Your task to perform on an android device: Go to internet settings Image 0: 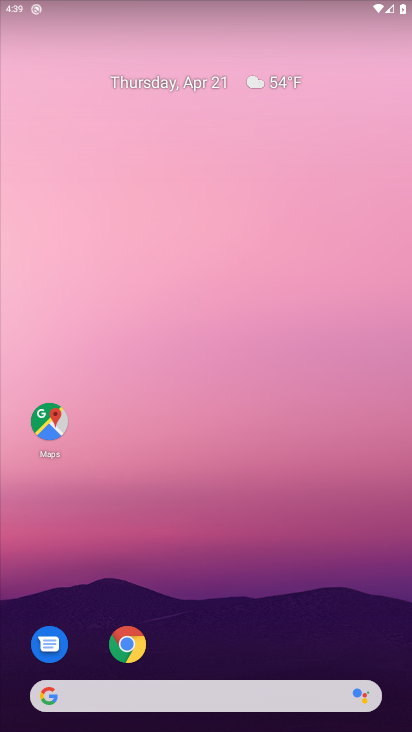
Step 0: drag from (207, 677) to (210, 207)
Your task to perform on an android device: Go to internet settings Image 1: 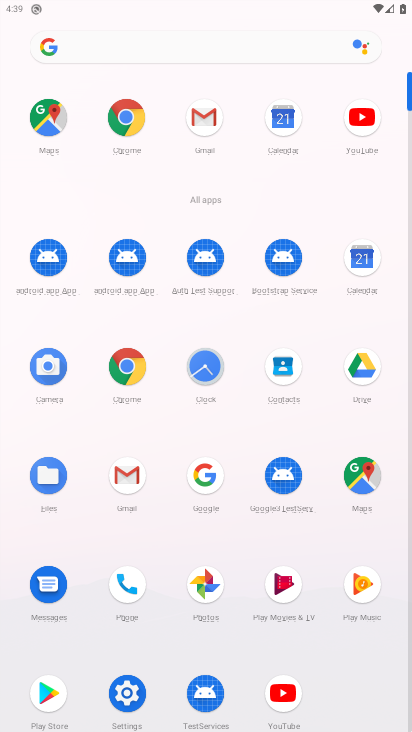
Step 1: click (123, 699)
Your task to perform on an android device: Go to internet settings Image 2: 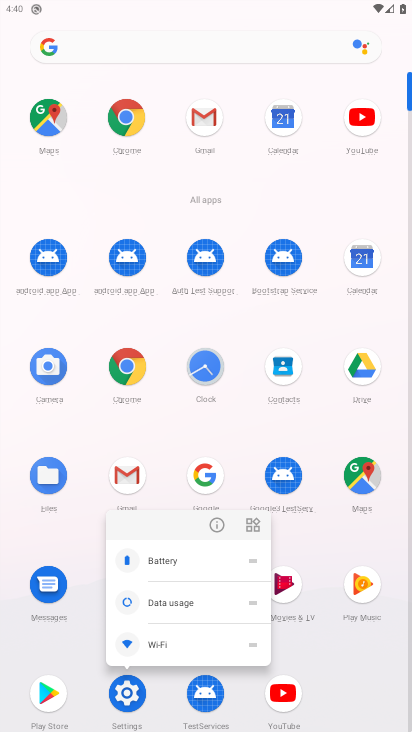
Step 2: click (131, 688)
Your task to perform on an android device: Go to internet settings Image 3: 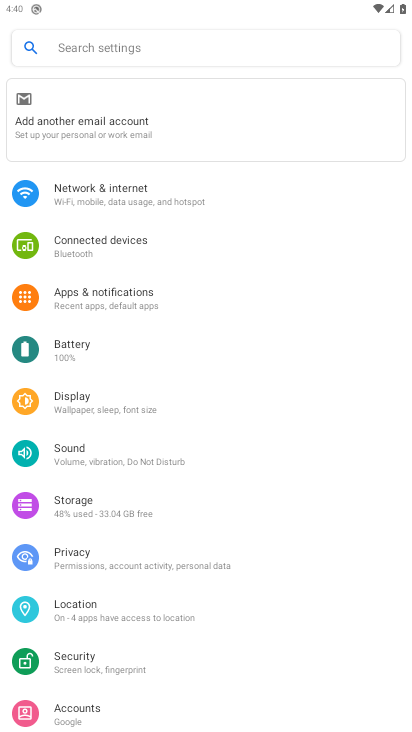
Step 3: click (127, 692)
Your task to perform on an android device: Go to internet settings Image 4: 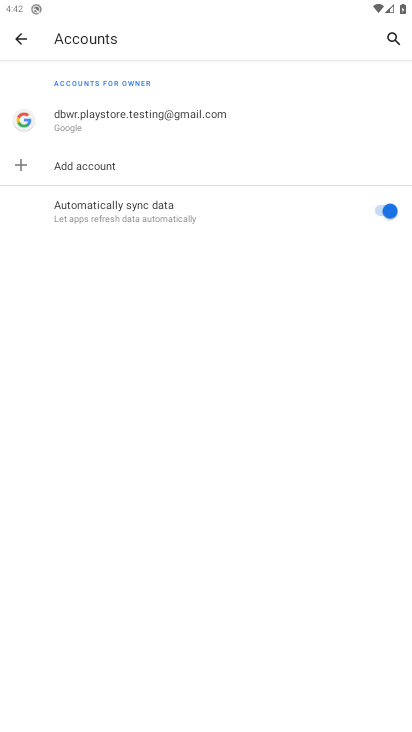
Step 4: press home button
Your task to perform on an android device: Go to internet settings Image 5: 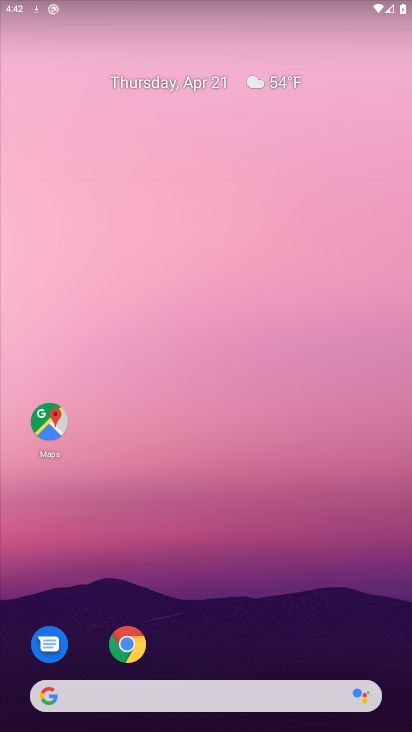
Step 5: click (234, 200)
Your task to perform on an android device: Go to internet settings Image 6: 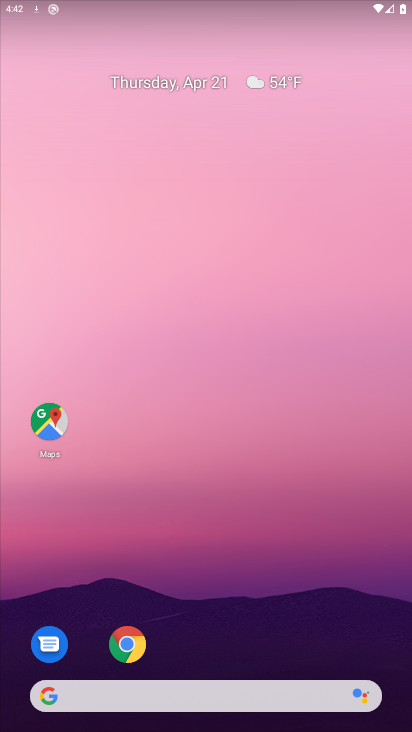
Step 6: drag from (227, 682) to (225, 222)
Your task to perform on an android device: Go to internet settings Image 7: 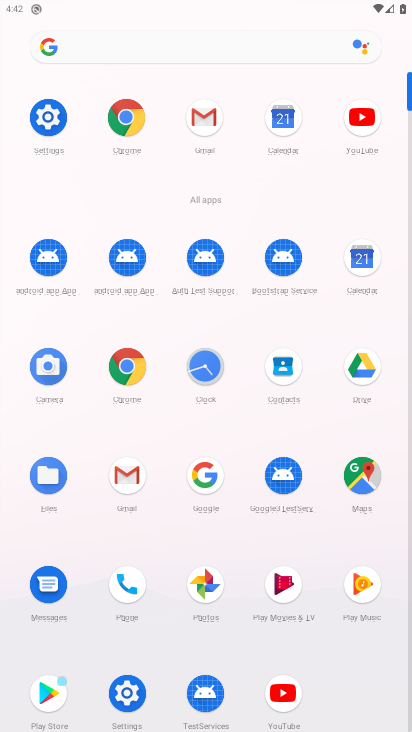
Step 7: click (44, 115)
Your task to perform on an android device: Go to internet settings Image 8: 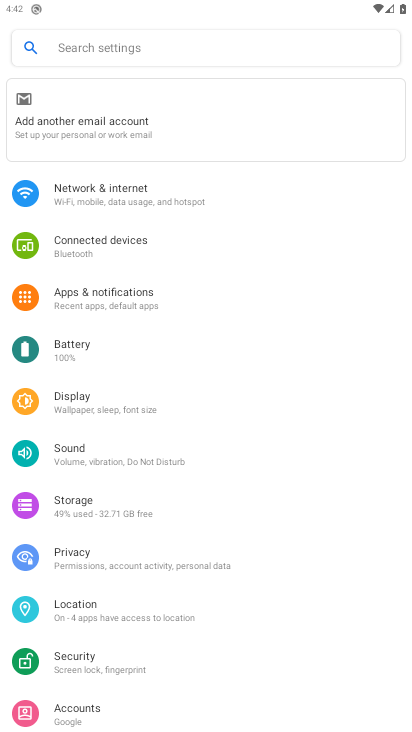
Step 8: click (105, 196)
Your task to perform on an android device: Go to internet settings Image 9: 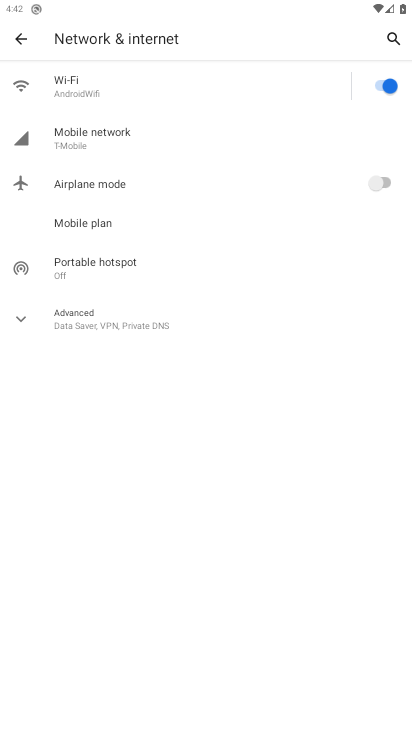
Step 9: click (109, 321)
Your task to perform on an android device: Go to internet settings Image 10: 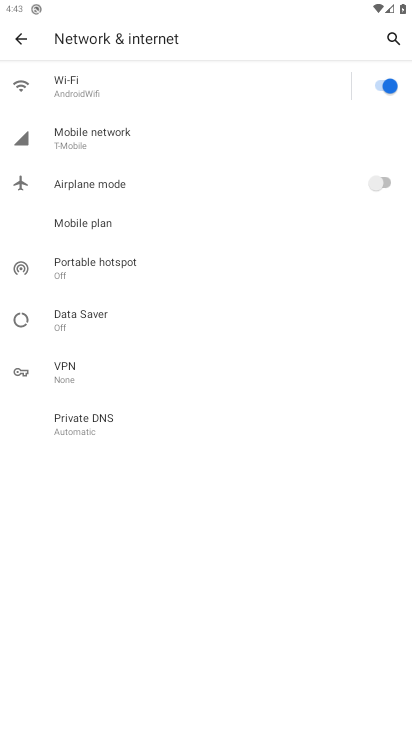
Step 10: task complete